Your task to perform on an android device: see sites visited before in the chrome app Image 0: 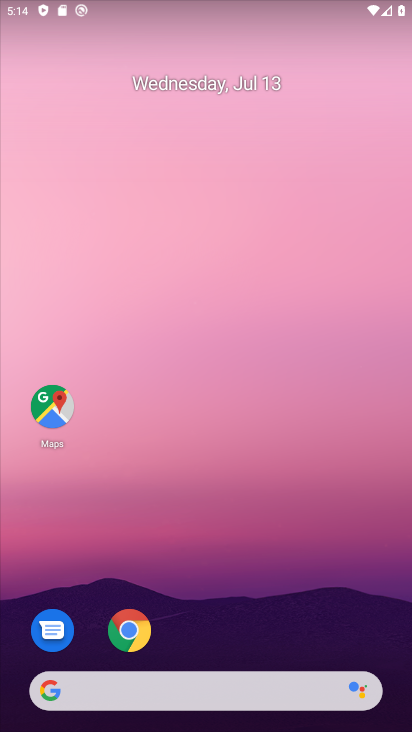
Step 0: drag from (262, 574) to (303, 102)
Your task to perform on an android device: see sites visited before in the chrome app Image 1: 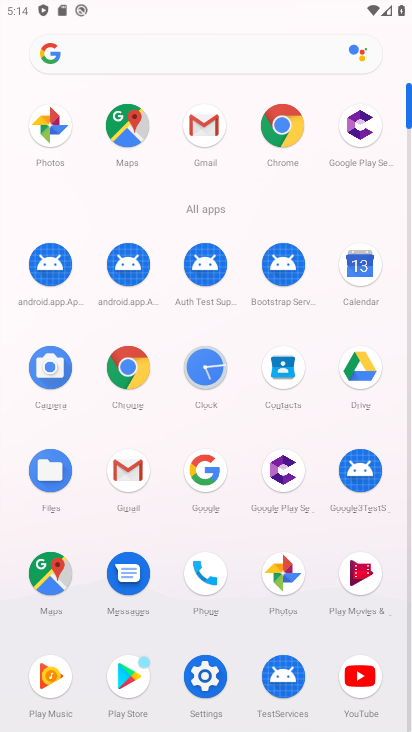
Step 1: click (123, 348)
Your task to perform on an android device: see sites visited before in the chrome app Image 2: 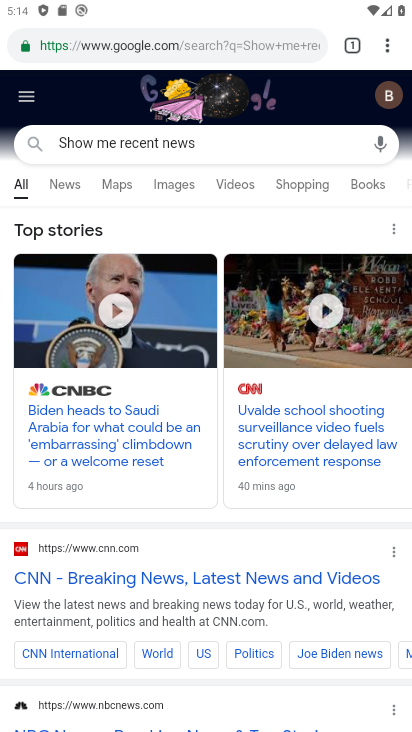
Step 2: click (385, 46)
Your task to perform on an android device: see sites visited before in the chrome app Image 3: 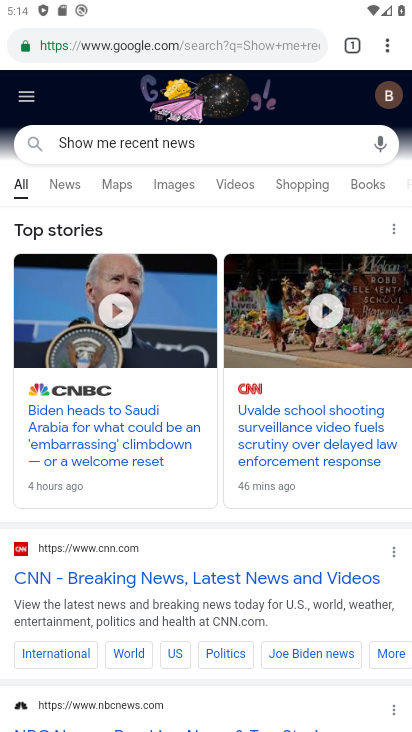
Step 3: drag from (391, 42) to (227, 561)
Your task to perform on an android device: see sites visited before in the chrome app Image 4: 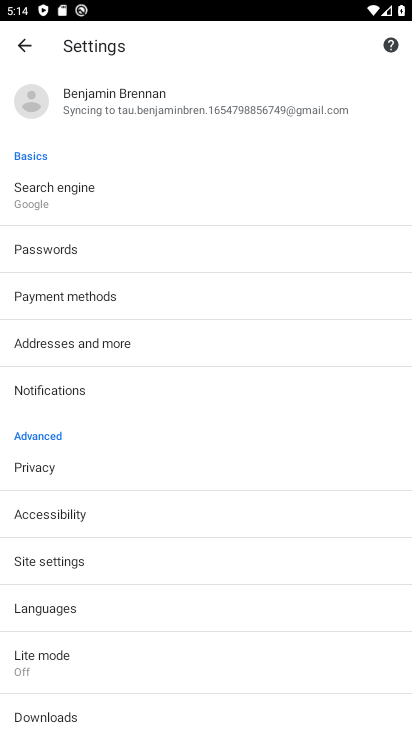
Step 4: drag from (103, 619) to (136, 295)
Your task to perform on an android device: see sites visited before in the chrome app Image 5: 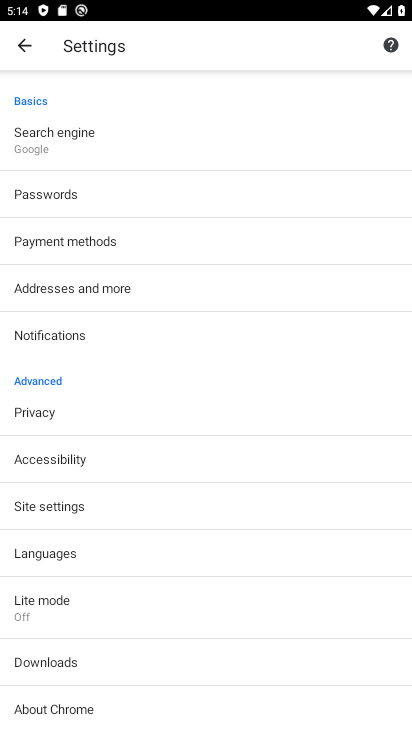
Step 5: click (39, 509)
Your task to perform on an android device: see sites visited before in the chrome app Image 6: 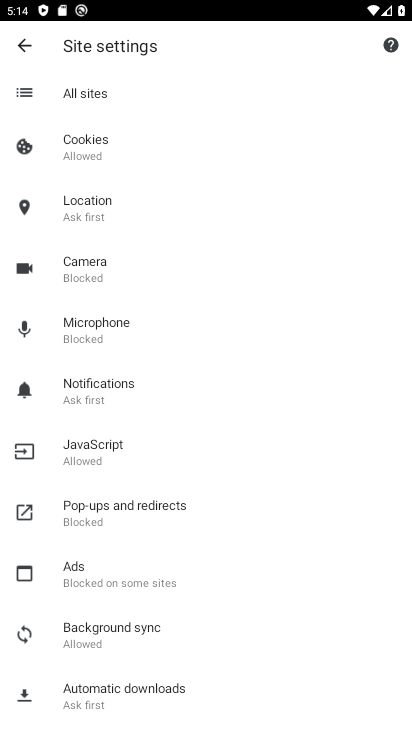
Step 6: click (72, 91)
Your task to perform on an android device: see sites visited before in the chrome app Image 7: 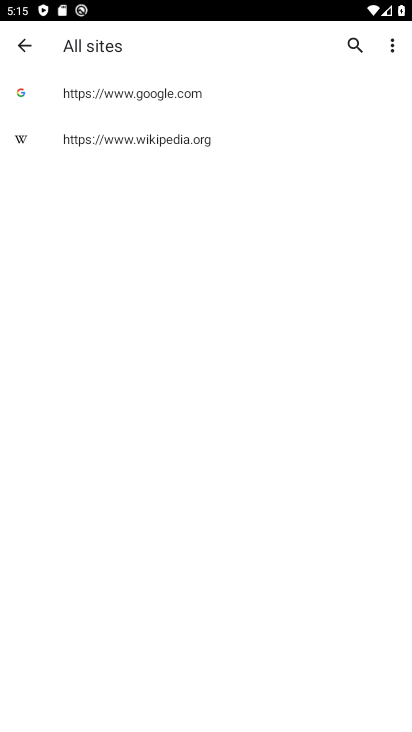
Step 7: click (112, 140)
Your task to perform on an android device: see sites visited before in the chrome app Image 8: 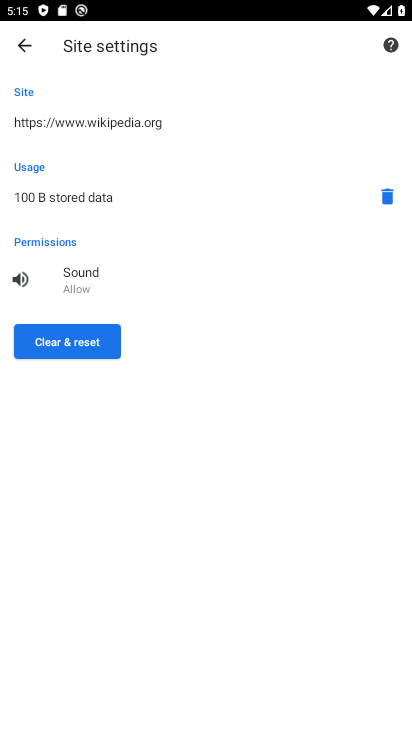
Step 8: click (18, 35)
Your task to perform on an android device: see sites visited before in the chrome app Image 9: 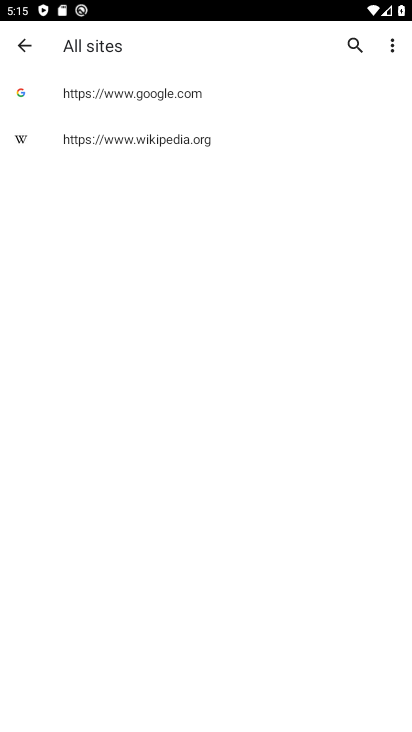
Step 9: click (149, 81)
Your task to perform on an android device: see sites visited before in the chrome app Image 10: 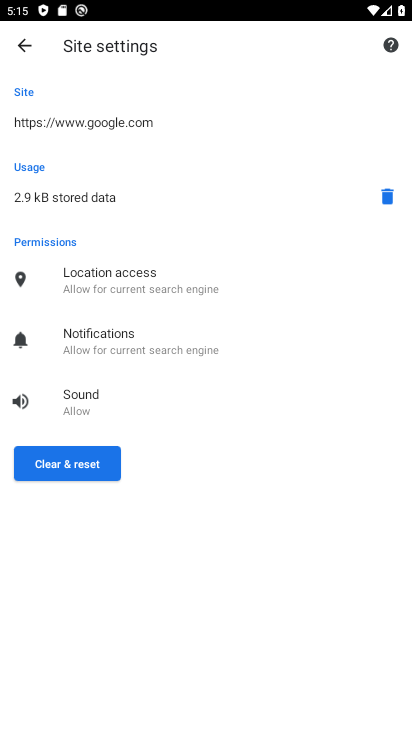
Step 10: click (82, 329)
Your task to perform on an android device: see sites visited before in the chrome app Image 11: 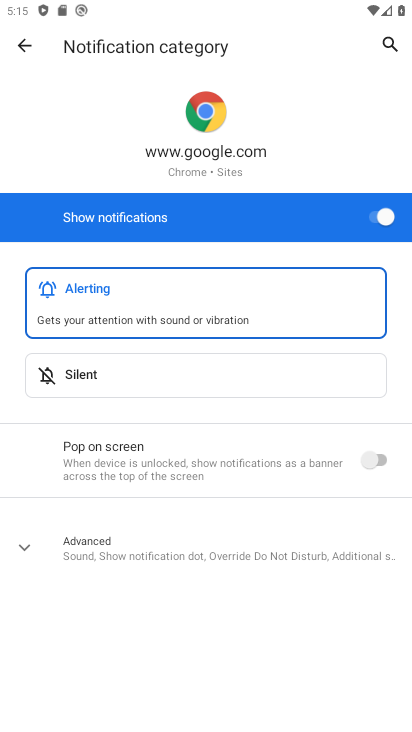
Step 11: task complete